Your task to perform on an android device: Open the calendar and show me this week's events? Image 0: 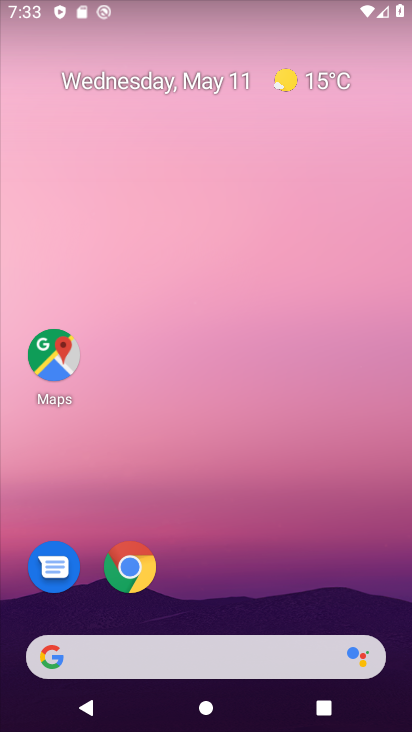
Step 0: drag from (154, 665) to (327, 166)
Your task to perform on an android device: Open the calendar and show me this week's events? Image 1: 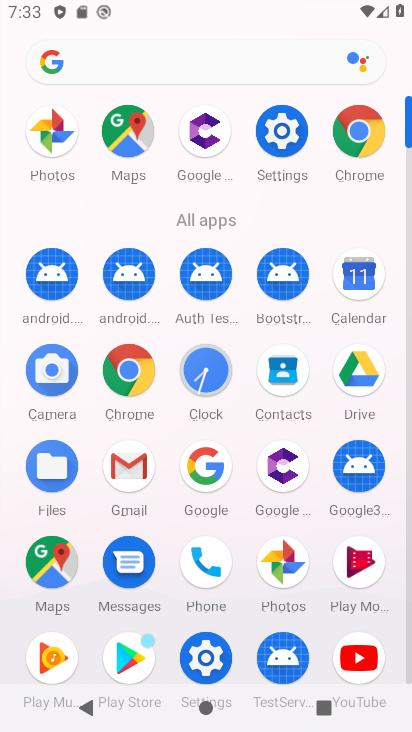
Step 1: click (358, 285)
Your task to perform on an android device: Open the calendar and show me this week's events? Image 2: 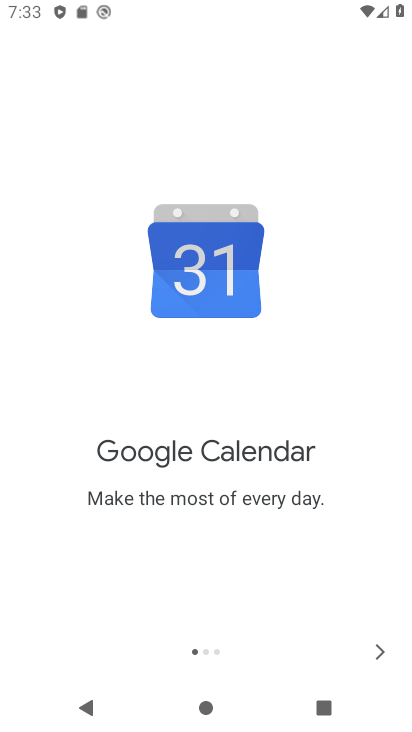
Step 2: click (378, 655)
Your task to perform on an android device: Open the calendar and show me this week's events? Image 3: 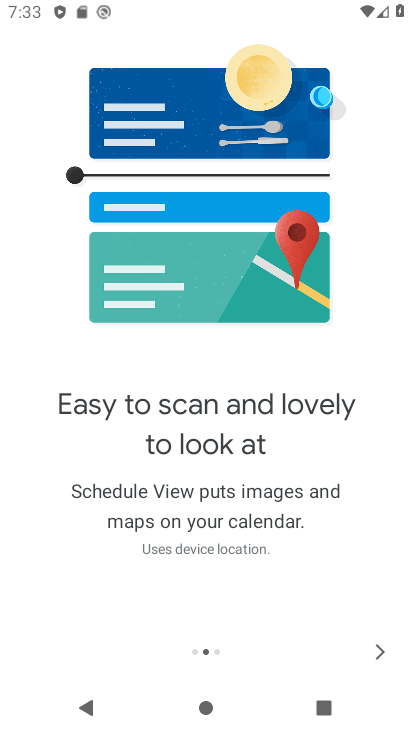
Step 3: click (378, 655)
Your task to perform on an android device: Open the calendar and show me this week's events? Image 4: 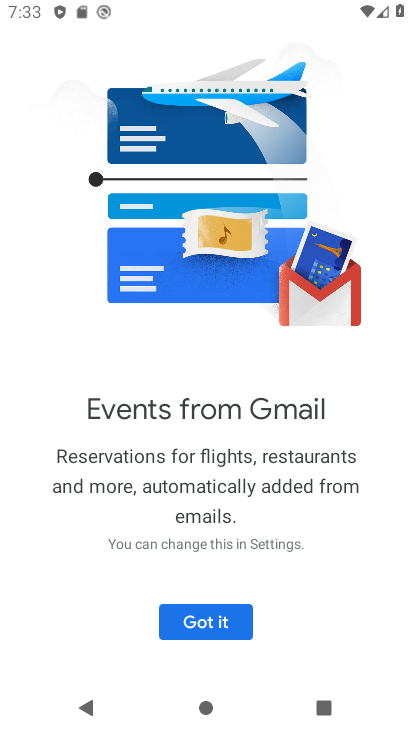
Step 4: click (226, 630)
Your task to perform on an android device: Open the calendar and show me this week's events? Image 5: 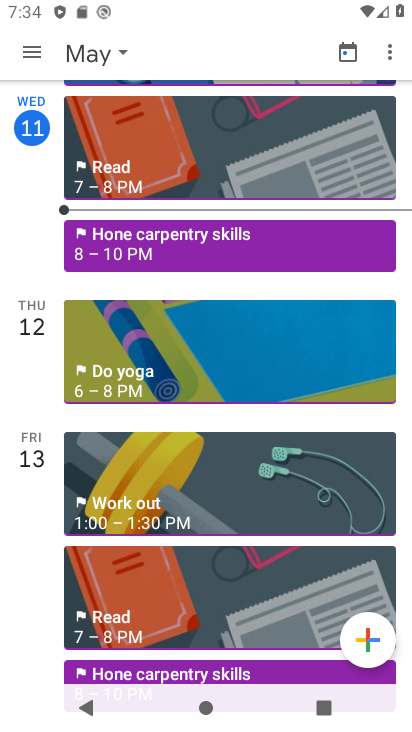
Step 5: click (85, 59)
Your task to perform on an android device: Open the calendar and show me this week's events? Image 6: 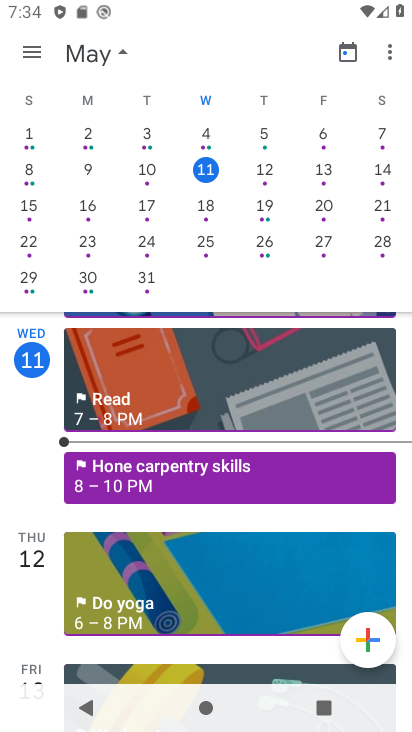
Step 6: click (205, 169)
Your task to perform on an android device: Open the calendar and show me this week's events? Image 7: 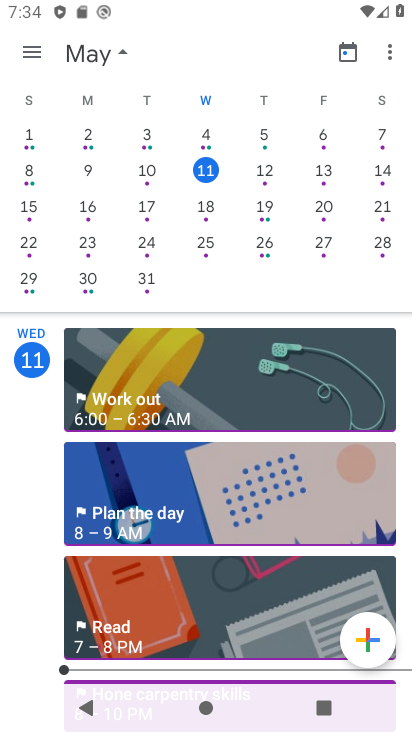
Step 7: click (30, 46)
Your task to perform on an android device: Open the calendar and show me this week's events? Image 8: 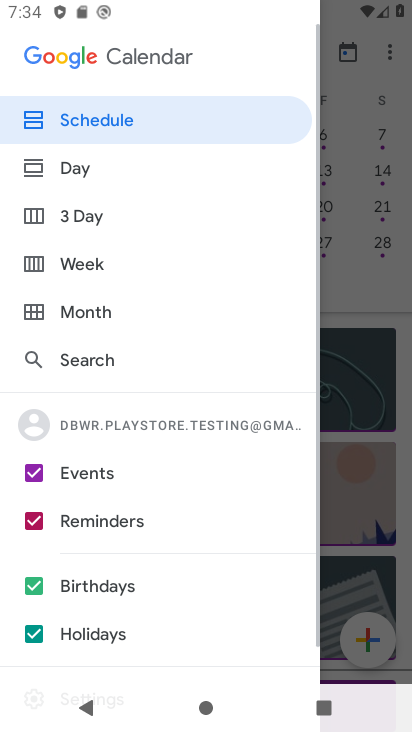
Step 8: click (82, 266)
Your task to perform on an android device: Open the calendar and show me this week's events? Image 9: 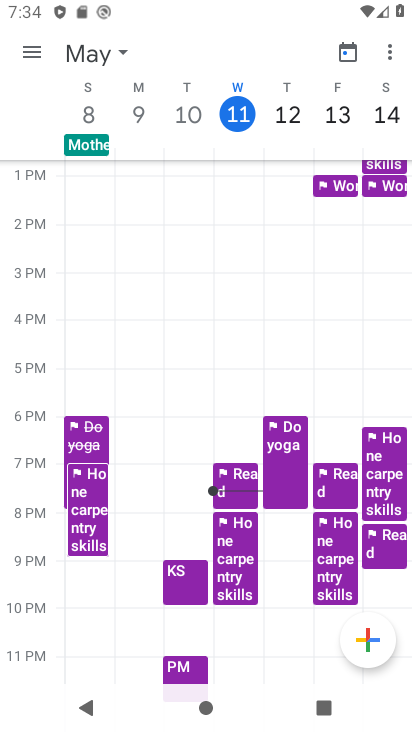
Step 9: click (35, 55)
Your task to perform on an android device: Open the calendar and show me this week's events? Image 10: 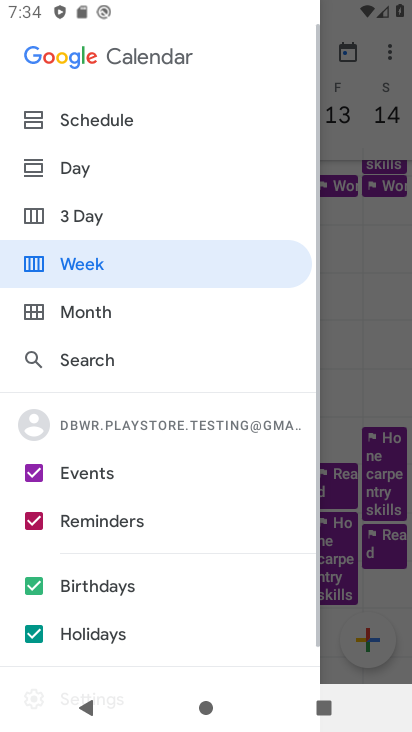
Step 10: click (78, 116)
Your task to perform on an android device: Open the calendar and show me this week's events? Image 11: 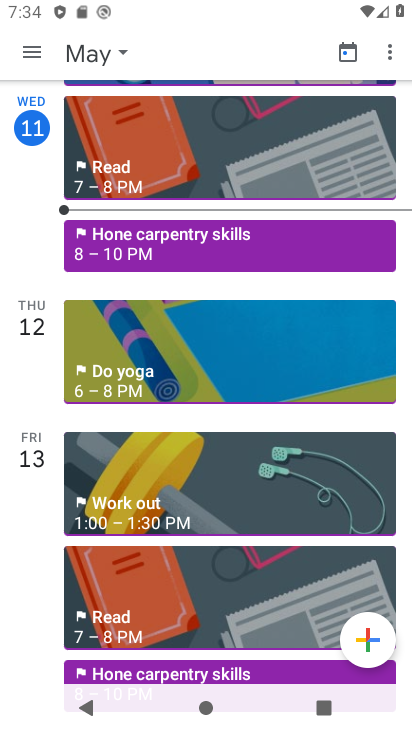
Step 11: click (196, 239)
Your task to perform on an android device: Open the calendar and show me this week's events? Image 12: 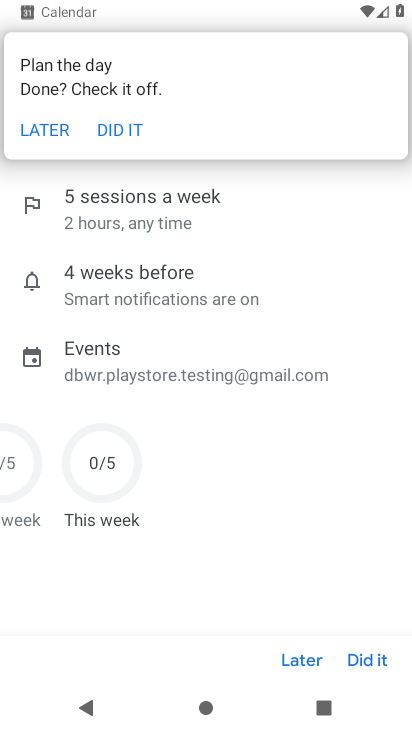
Step 12: task complete